Your task to perform on an android device: delete location history Image 0: 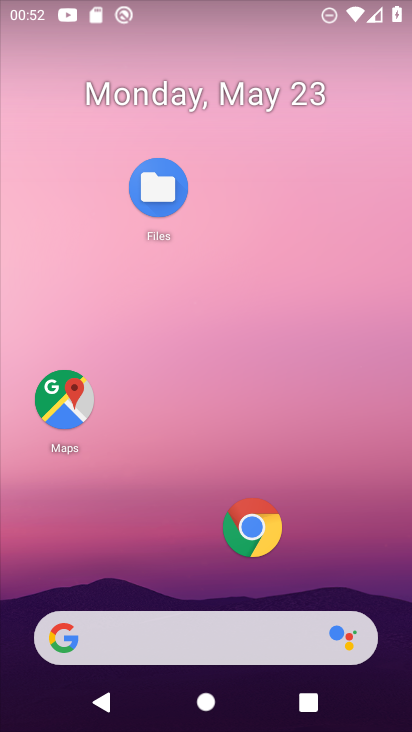
Step 0: click (251, 166)
Your task to perform on an android device: delete location history Image 1: 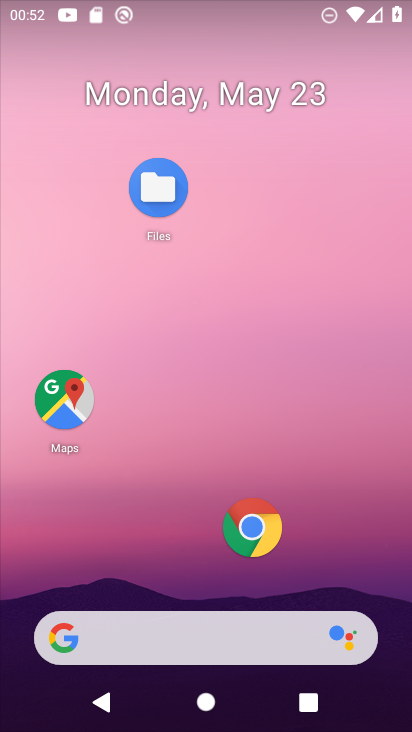
Step 1: drag from (163, 567) to (171, 211)
Your task to perform on an android device: delete location history Image 2: 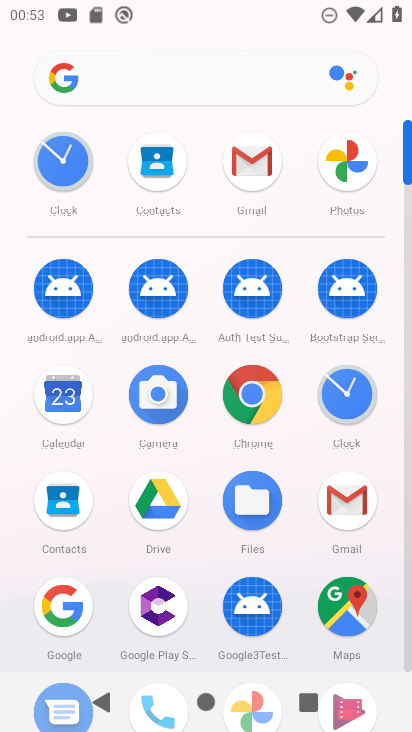
Step 2: drag from (194, 515) to (172, 200)
Your task to perform on an android device: delete location history Image 3: 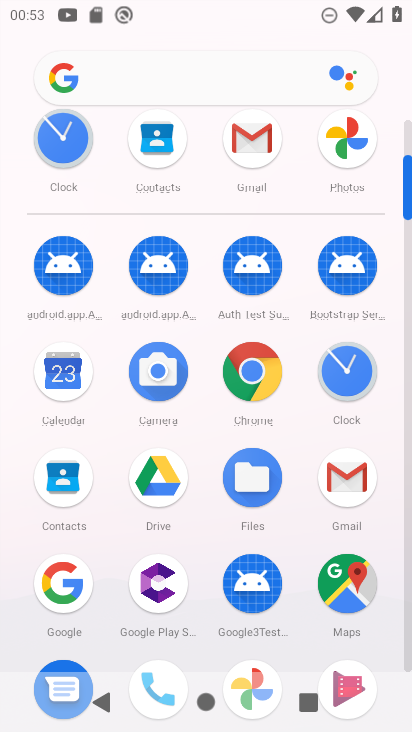
Step 3: click (336, 569)
Your task to perform on an android device: delete location history Image 4: 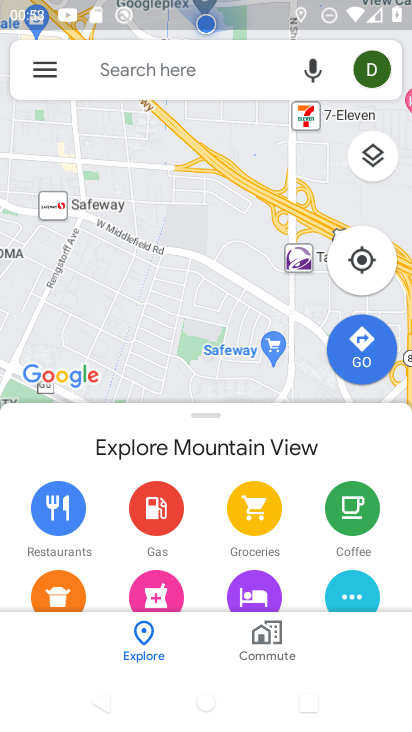
Step 4: click (39, 67)
Your task to perform on an android device: delete location history Image 5: 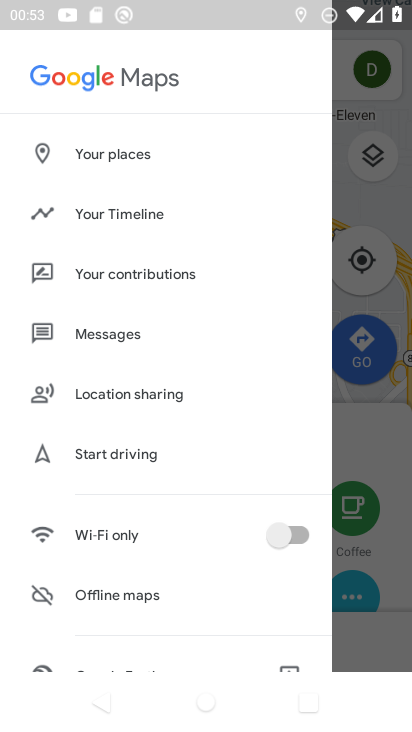
Step 5: click (113, 212)
Your task to perform on an android device: delete location history Image 6: 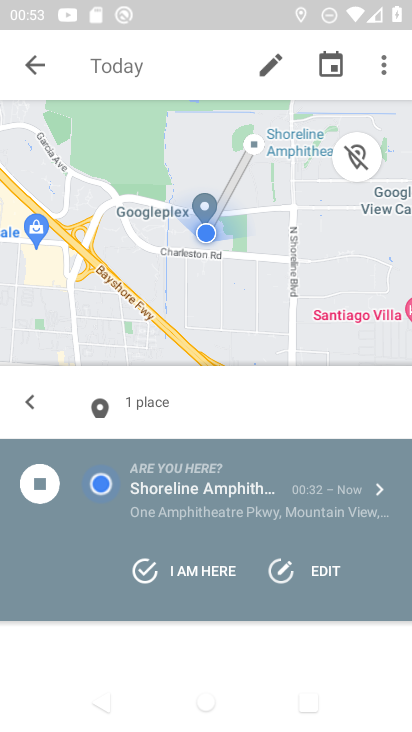
Step 6: click (384, 61)
Your task to perform on an android device: delete location history Image 7: 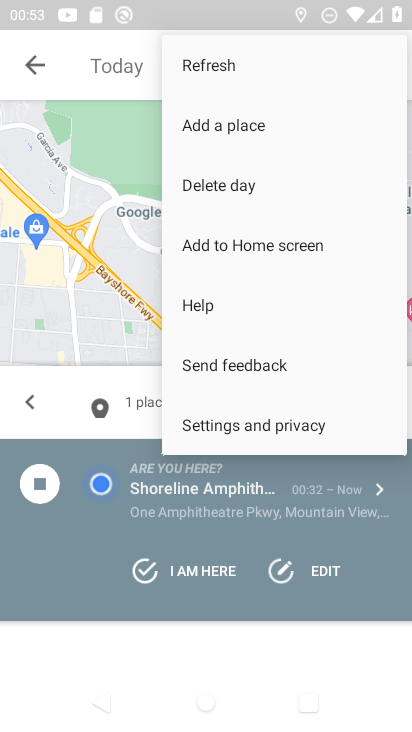
Step 7: click (273, 430)
Your task to perform on an android device: delete location history Image 8: 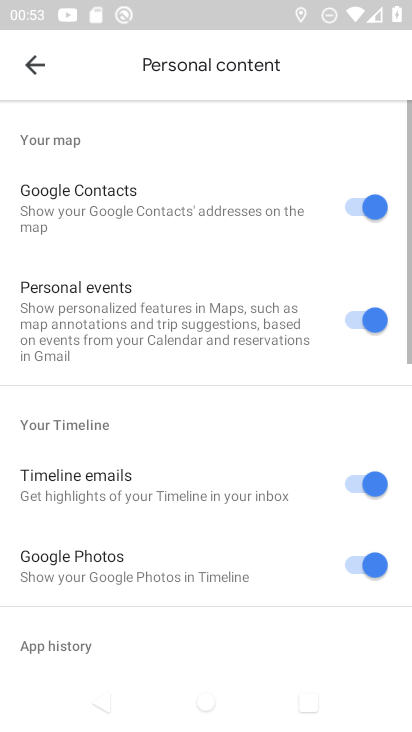
Step 8: drag from (278, 548) to (226, 284)
Your task to perform on an android device: delete location history Image 9: 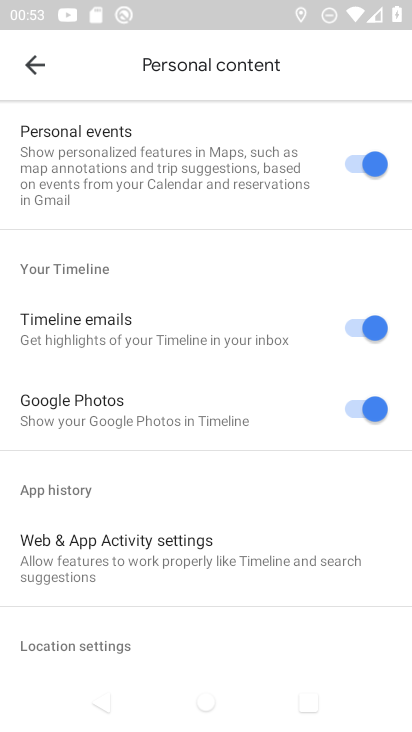
Step 9: drag from (241, 552) to (199, 130)
Your task to perform on an android device: delete location history Image 10: 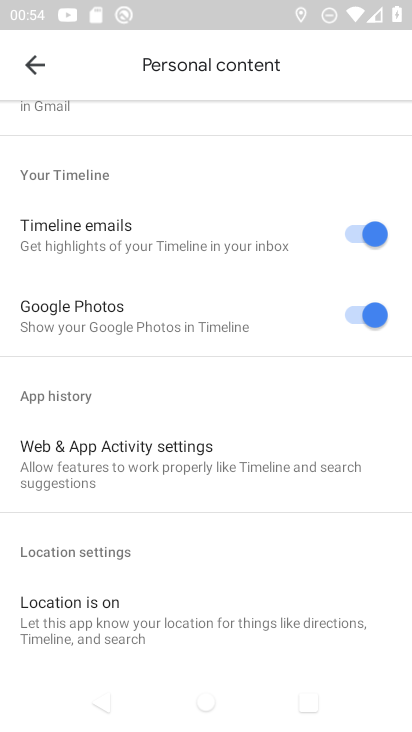
Step 10: drag from (199, 485) to (132, 101)
Your task to perform on an android device: delete location history Image 11: 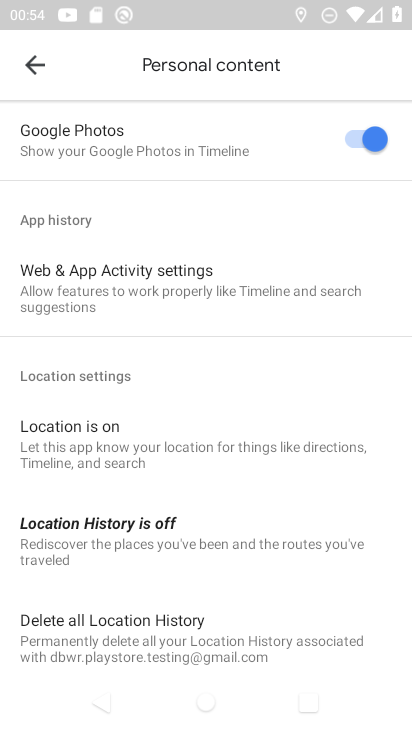
Step 11: click (87, 625)
Your task to perform on an android device: delete location history Image 12: 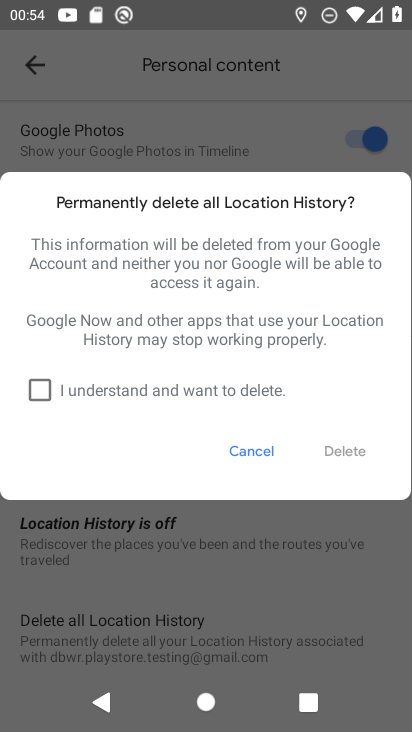
Step 12: click (36, 380)
Your task to perform on an android device: delete location history Image 13: 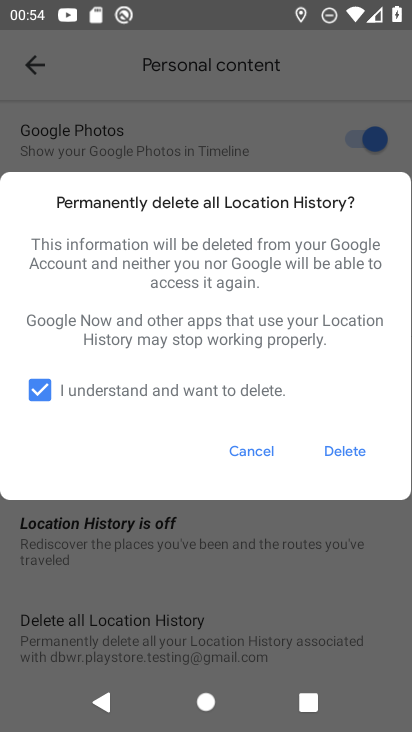
Step 13: click (339, 443)
Your task to perform on an android device: delete location history Image 14: 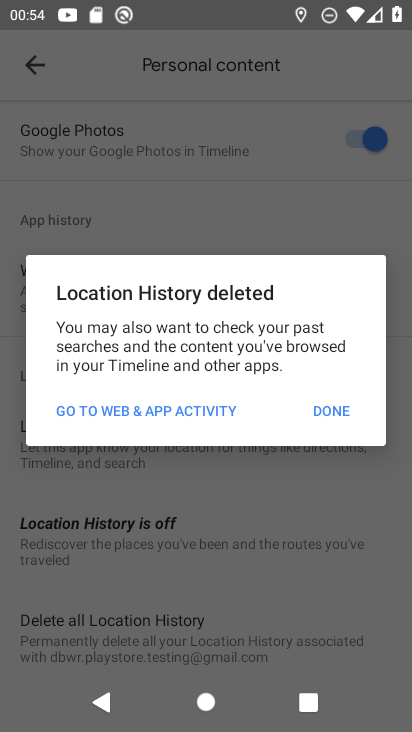
Step 14: task complete